Your task to perform on an android device: move a message to another label in the gmail app Image 0: 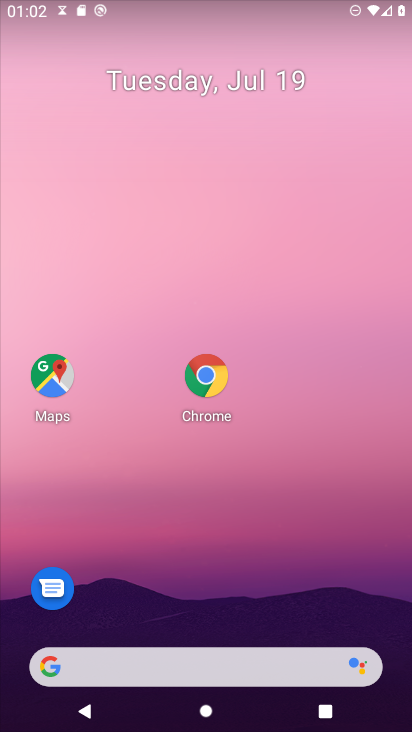
Step 0: press home button
Your task to perform on an android device: move a message to another label in the gmail app Image 1: 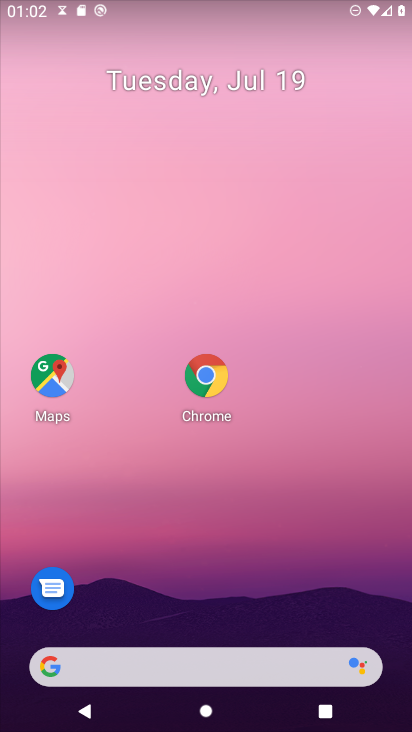
Step 1: drag from (337, 567) to (337, 0)
Your task to perform on an android device: move a message to another label in the gmail app Image 2: 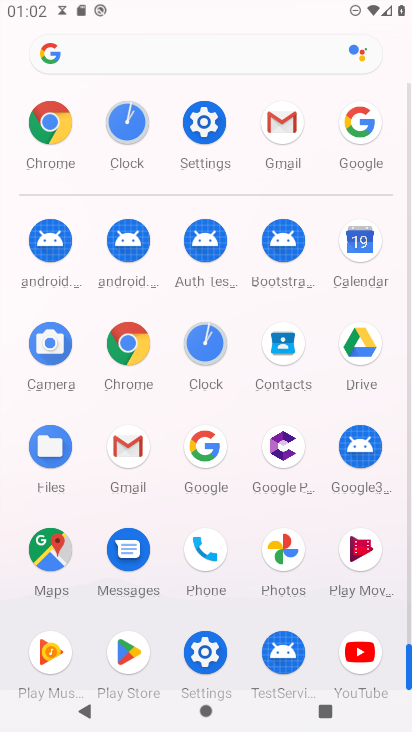
Step 2: drag from (267, 523) to (303, 152)
Your task to perform on an android device: move a message to another label in the gmail app Image 3: 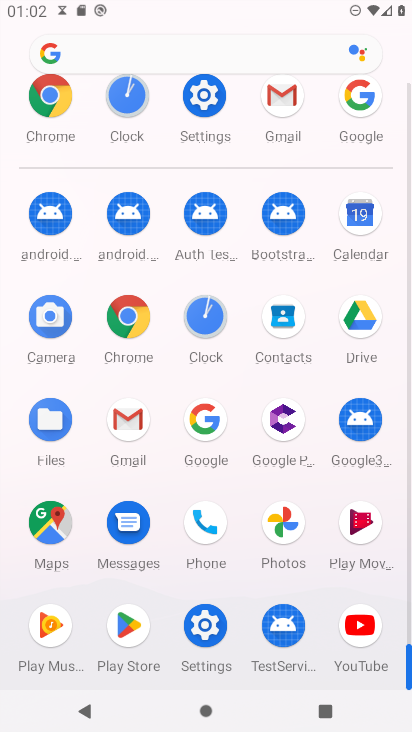
Step 3: click (276, 115)
Your task to perform on an android device: move a message to another label in the gmail app Image 4: 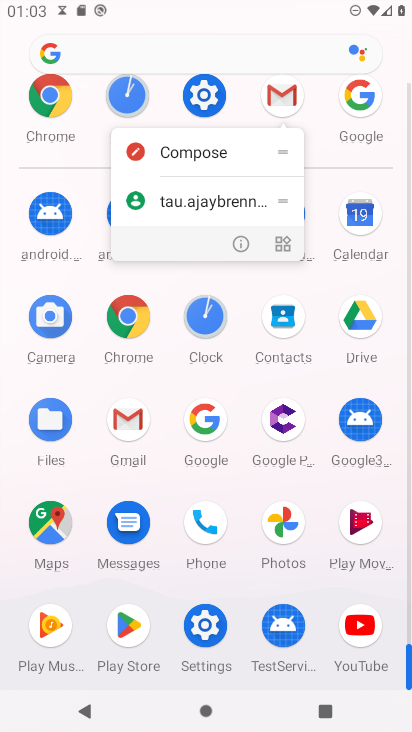
Step 4: click (282, 96)
Your task to perform on an android device: move a message to another label in the gmail app Image 5: 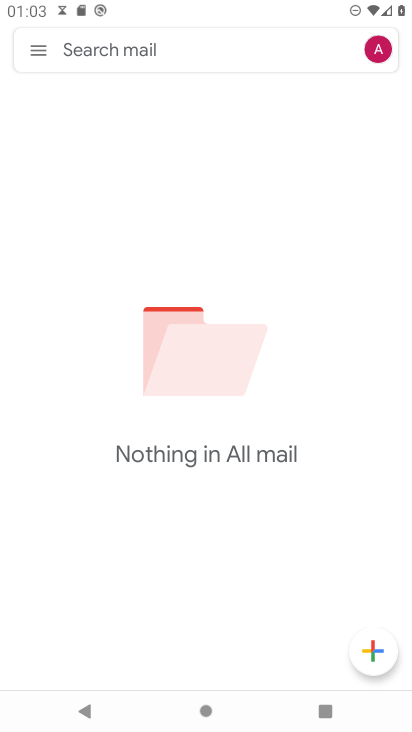
Step 5: click (29, 51)
Your task to perform on an android device: move a message to another label in the gmail app Image 6: 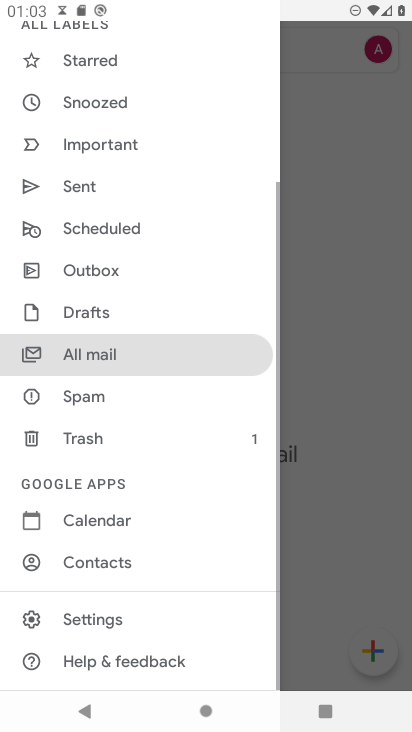
Step 6: click (102, 354)
Your task to perform on an android device: move a message to another label in the gmail app Image 7: 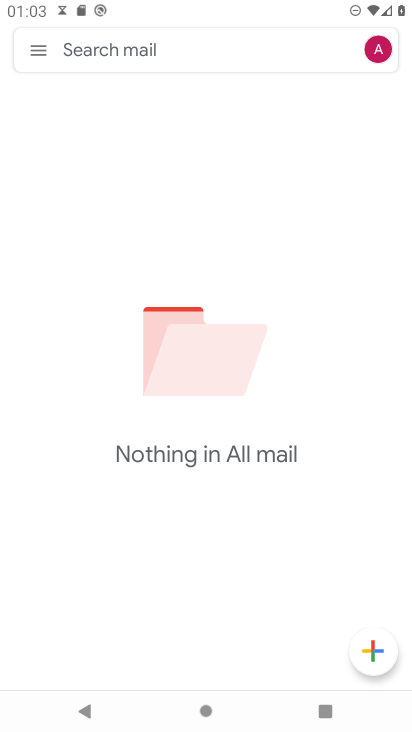
Step 7: task complete